Your task to perform on an android device: check the backup settings in the google photos Image 0: 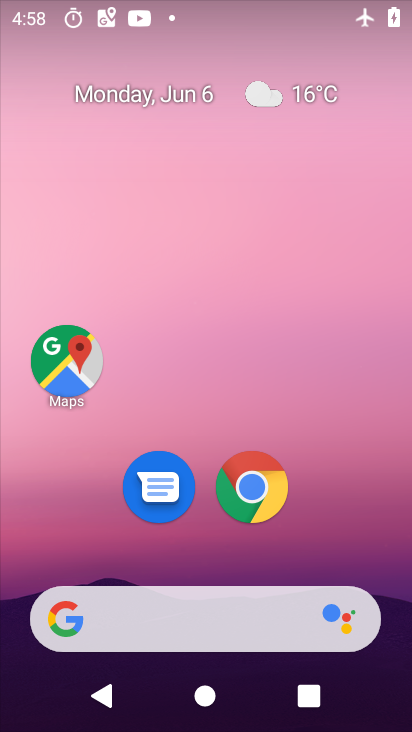
Step 0: click (296, 107)
Your task to perform on an android device: check the backup settings in the google photos Image 1: 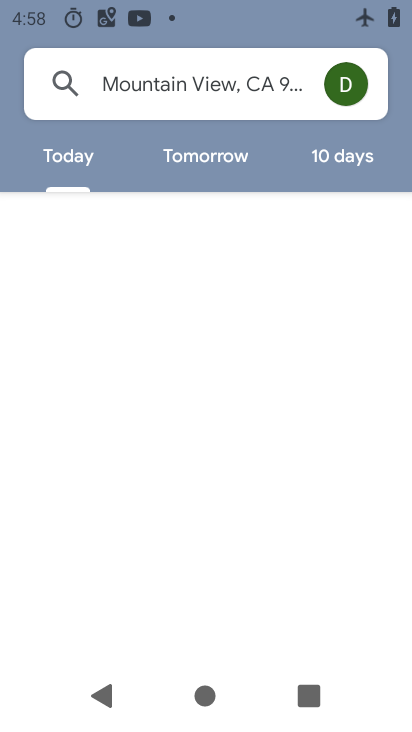
Step 1: press home button
Your task to perform on an android device: check the backup settings in the google photos Image 2: 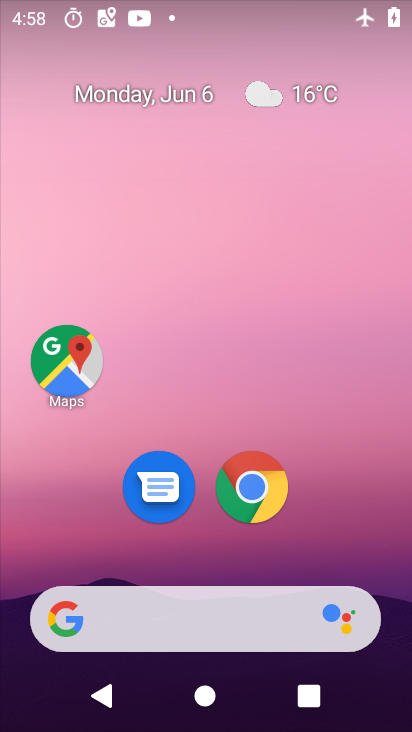
Step 2: drag from (372, 519) to (229, 100)
Your task to perform on an android device: check the backup settings in the google photos Image 3: 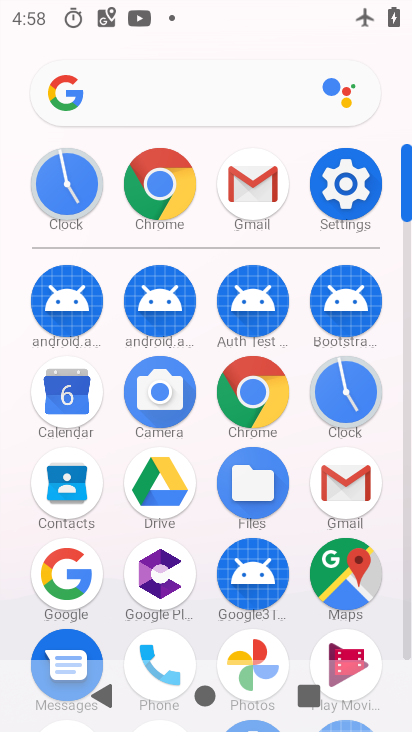
Step 3: click (258, 655)
Your task to perform on an android device: check the backup settings in the google photos Image 4: 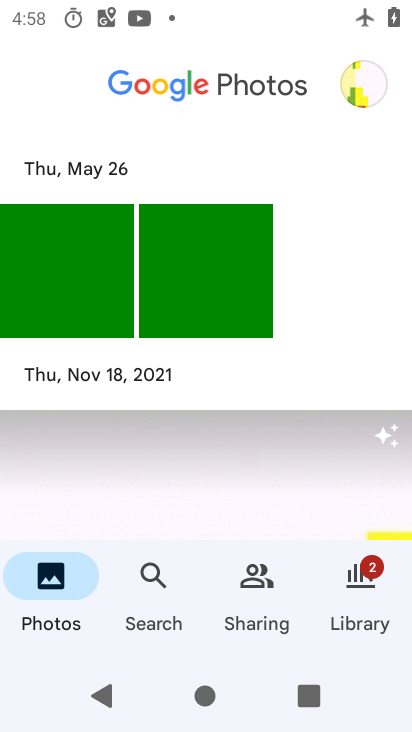
Step 4: click (367, 59)
Your task to perform on an android device: check the backup settings in the google photos Image 5: 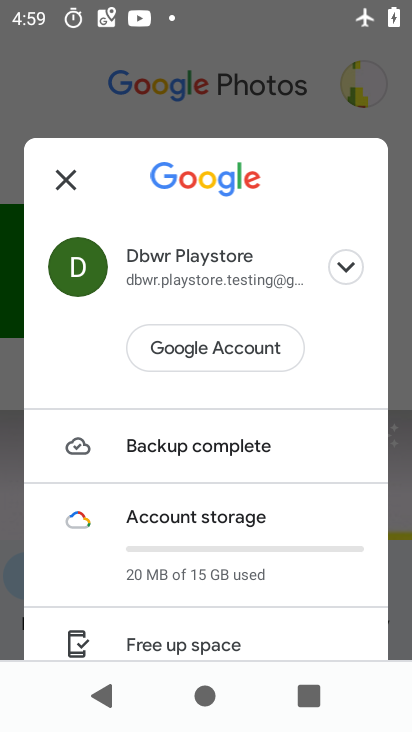
Step 5: drag from (249, 574) to (289, 212)
Your task to perform on an android device: check the backup settings in the google photos Image 6: 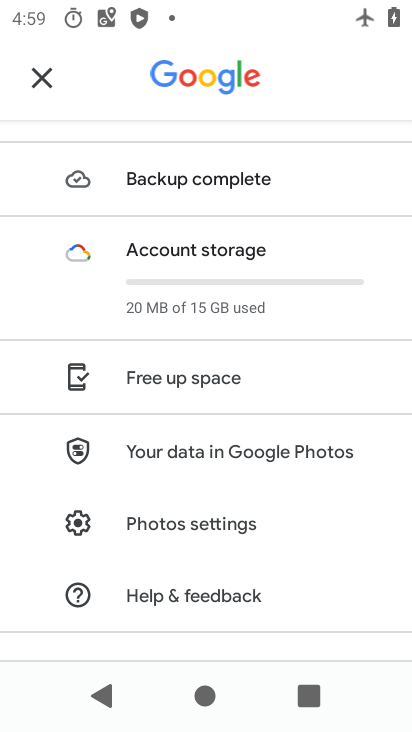
Step 6: click (168, 541)
Your task to perform on an android device: check the backup settings in the google photos Image 7: 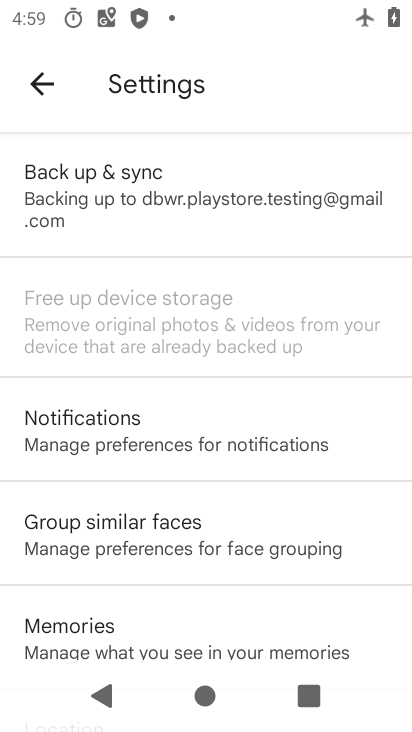
Step 7: click (183, 196)
Your task to perform on an android device: check the backup settings in the google photos Image 8: 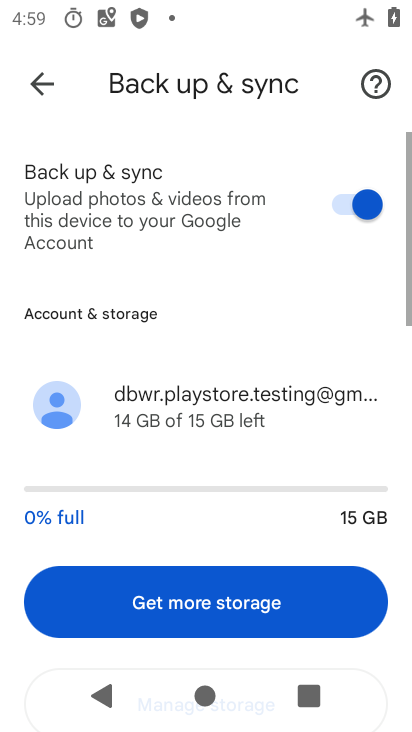
Step 8: task complete